Your task to perform on an android device: find which apps use the phone's location Image 0: 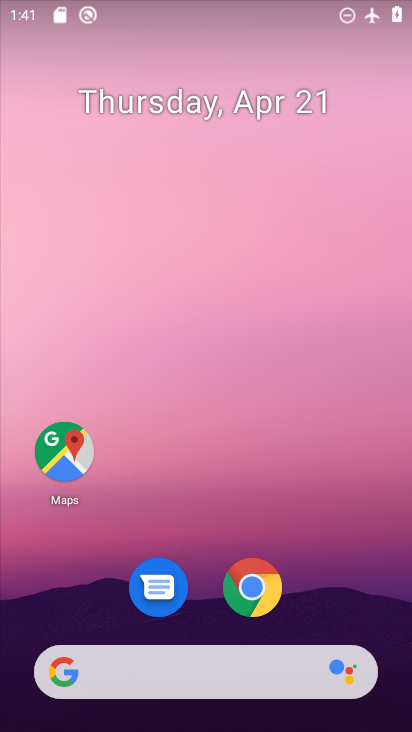
Step 0: drag from (329, 551) to (311, 87)
Your task to perform on an android device: find which apps use the phone's location Image 1: 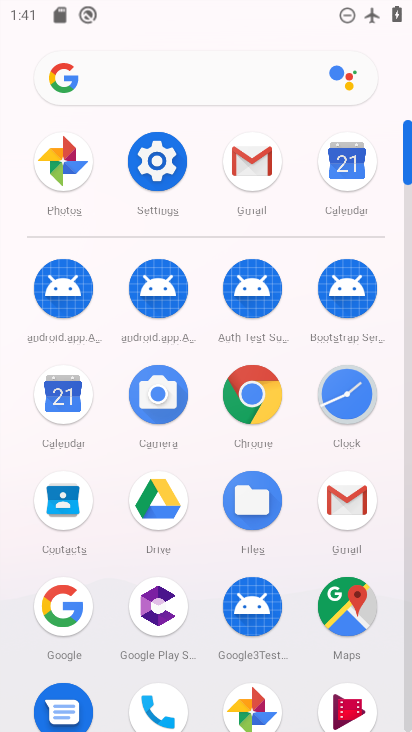
Step 1: drag from (132, 488) to (121, 160)
Your task to perform on an android device: find which apps use the phone's location Image 2: 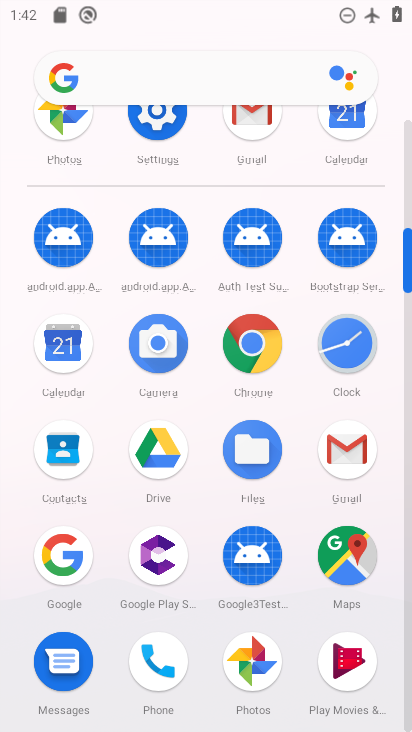
Step 2: click (154, 128)
Your task to perform on an android device: find which apps use the phone's location Image 3: 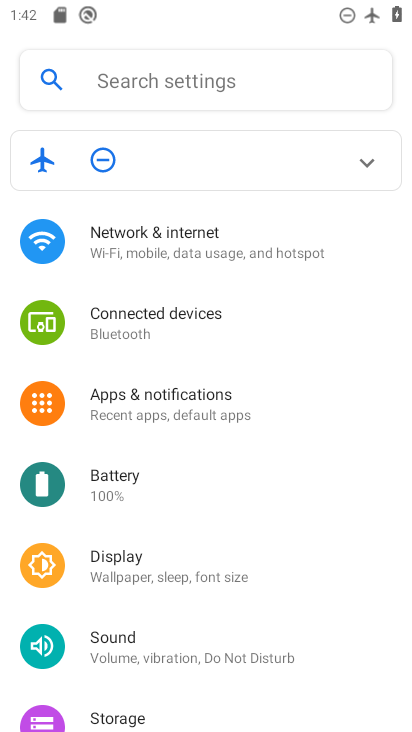
Step 3: drag from (154, 612) to (145, 246)
Your task to perform on an android device: find which apps use the phone's location Image 4: 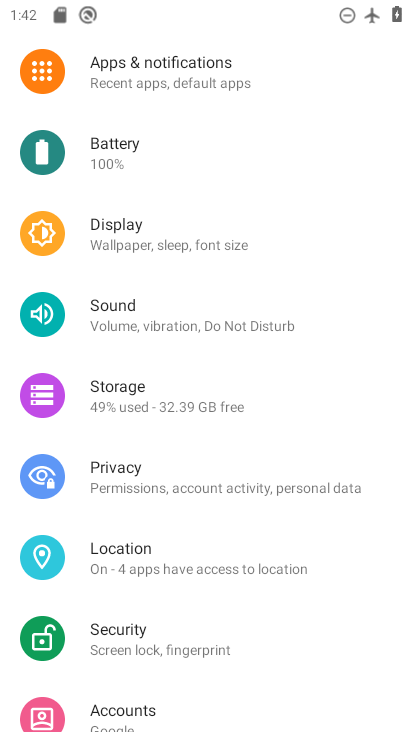
Step 4: click (113, 544)
Your task to perform on an android device: find which apps use the phone's location Image 5: 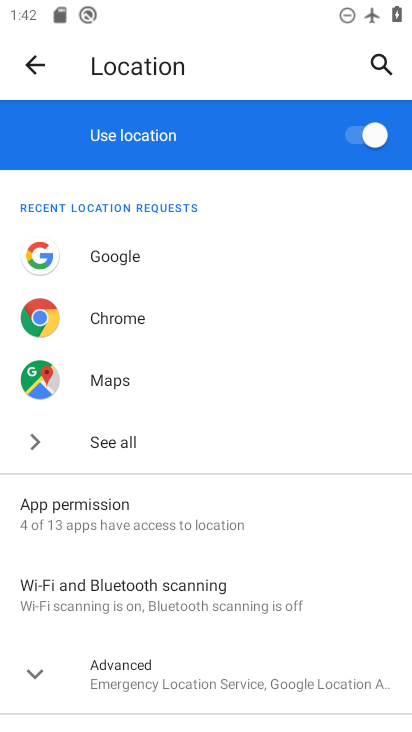
Step 5: click (91, 436)
Your task to perform on an android device: find which apps use the phone's location Image 6: 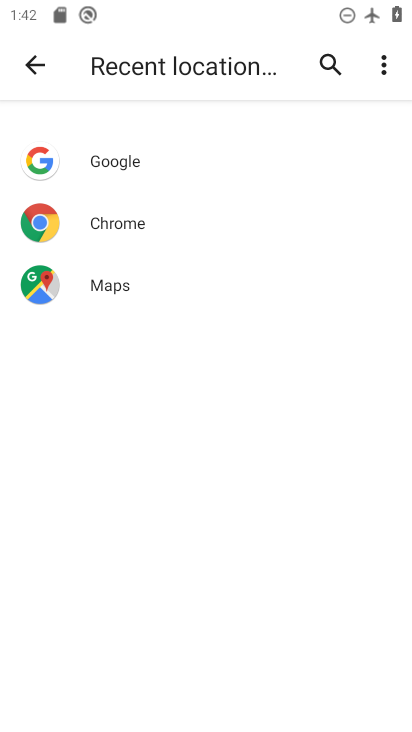
Step 6: task complete